Your task to perform on an android device: Go to calendar. Show me events next week Image 0: 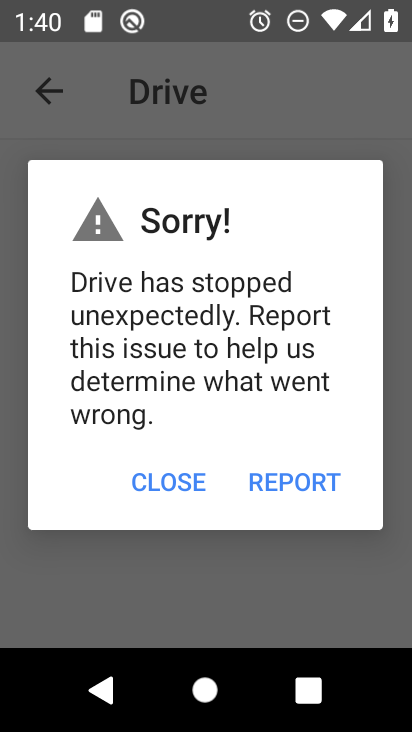
Step 0: press home button
Your task to perform on an android device: Go to calendar. Show me events next week Image 1: 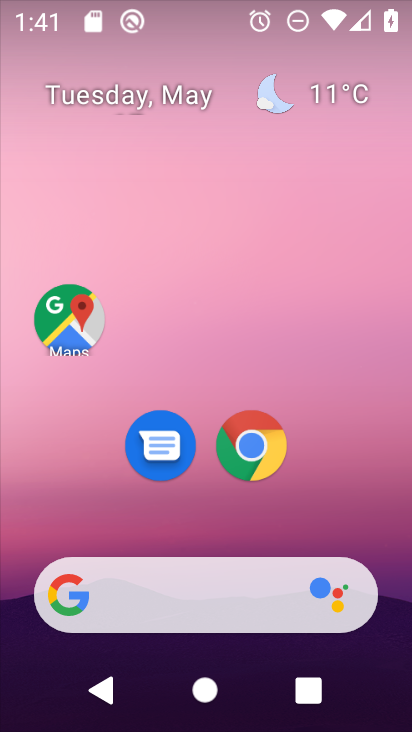
Step 1: drag from (343, 501) to (288, 36)
Your task to perform on an android device: Go to calendar. Show me events next week Image 2: 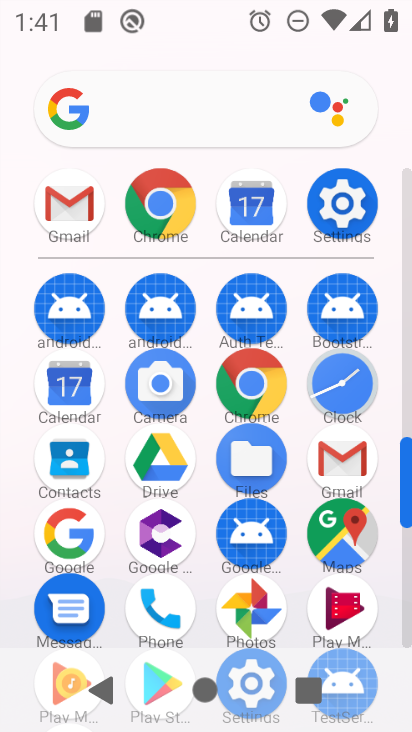
Step 2: click (64, 383)
Your task to perform on an android device: Go to calendar. Show me events next week Image 3: 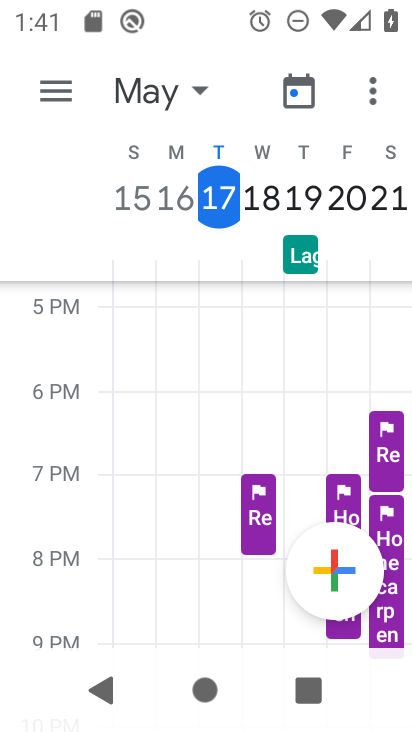
Step 3: click (145, 85)
Your task to perform on an android device: Go to calendar. Show me events next week Image 4: 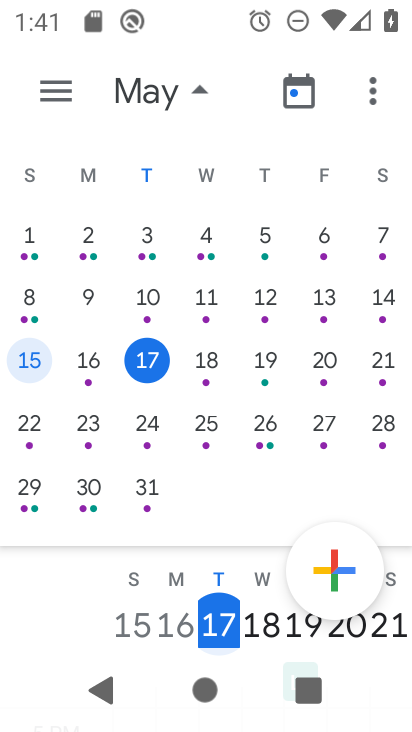
Step 4: click (155, 429)
Your task to perform on an android device: Go to calendar. Show me events next week Image 5: 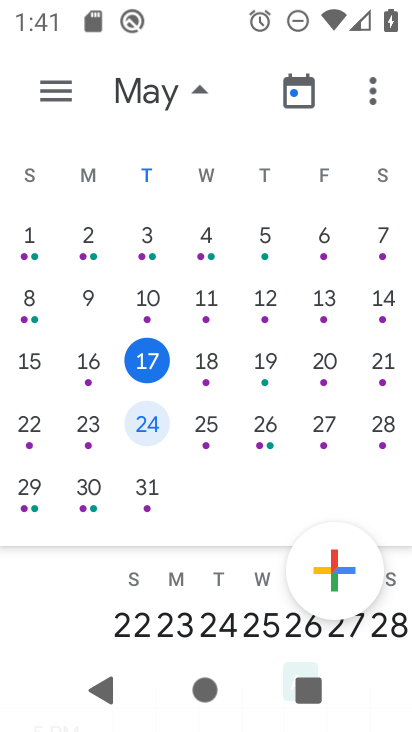
Step 5: task complete